Your task to perform on an android device: turn vacation reply on in the gmail app Image 0: 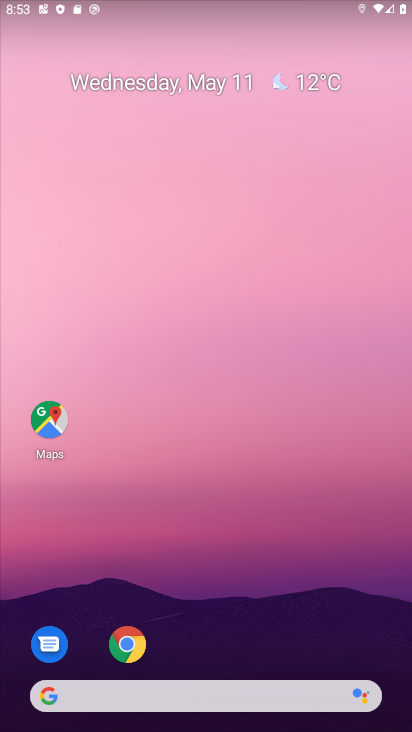
Step 0: drag from (233, 639) to (213, 308)
Your task to perform on an android device: turn vacation reply on in the gmail app Image 1: 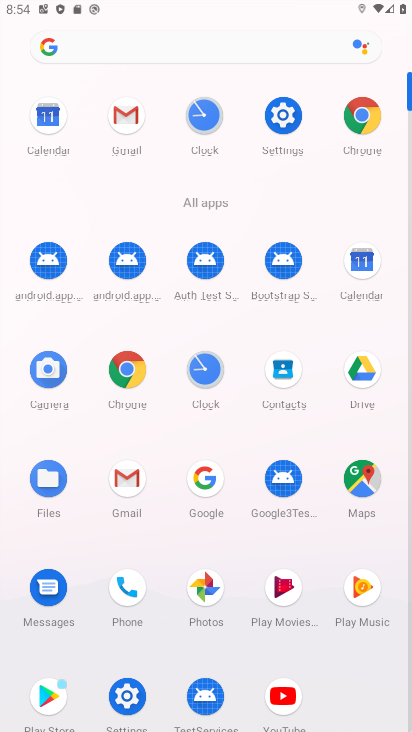
Step 1: click (130, 118)
Your task to perform on an android device: turn vacation reply on in the gmail app Image 2: 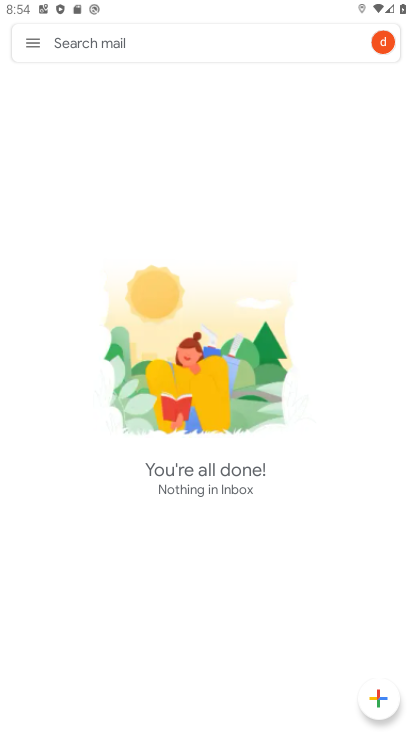
Step 2: click (34, 41)
Your task to perform on an android device: turn vacation reply on in the gmail app Image 3: 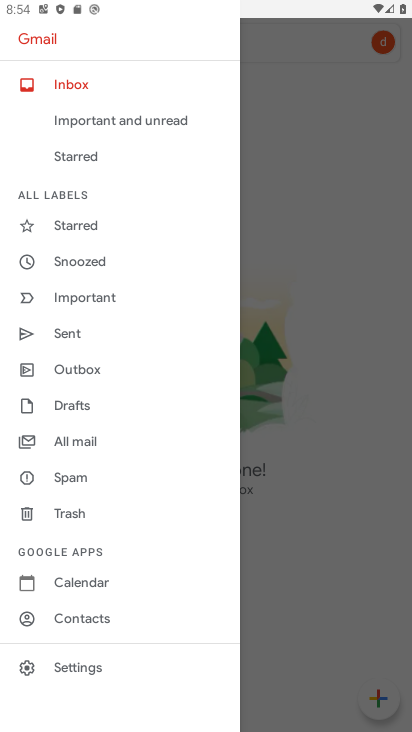
Step 3: click (67, 664)
Your task to perform on an android device: turn vacation reply on in the gmail app Image 4: 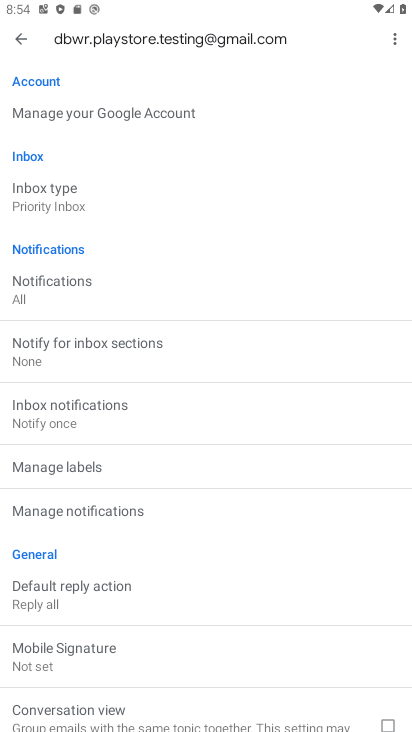
Step 4: drag from (126, 678) to (181, 328)
Your task to perform on an android device: turn vacation reply on in the gmail app Image 5: 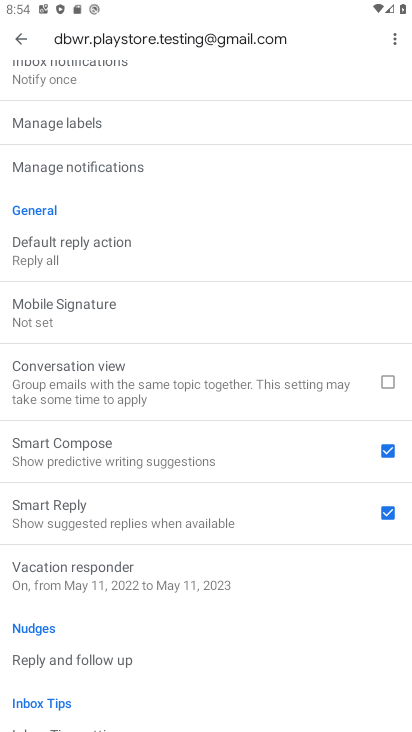
Step 5: click (88, 575)
Your task to perform on an android device: turn vacation reply on in the gmail app Image 6: 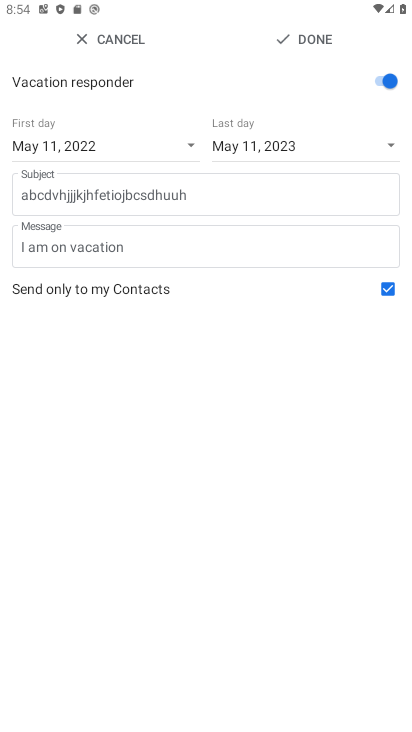
Step 6: task complete